Your task to perform on an android device: turn off translation in the chrome app Image 0: 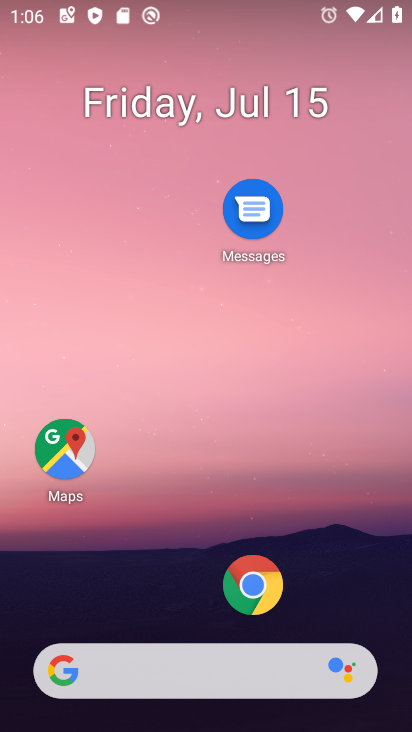
Step 0: press home button
Your task to perform on an android device: turn off translation in the chrome app Image 1: 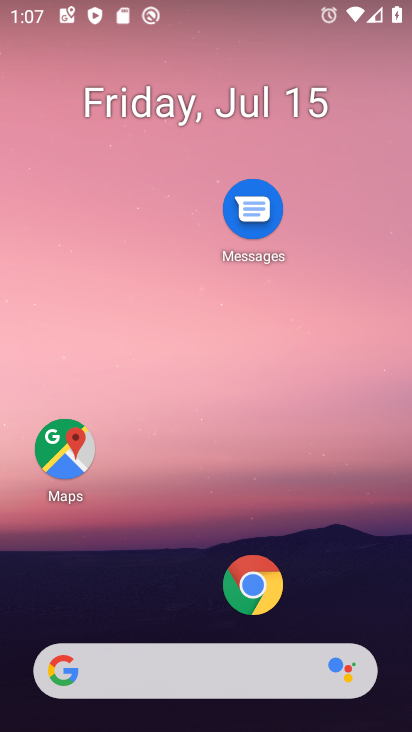
Step 1: click (243, 590)
Your task to perform on an android device: turn off translation in the chrome app Image 2: 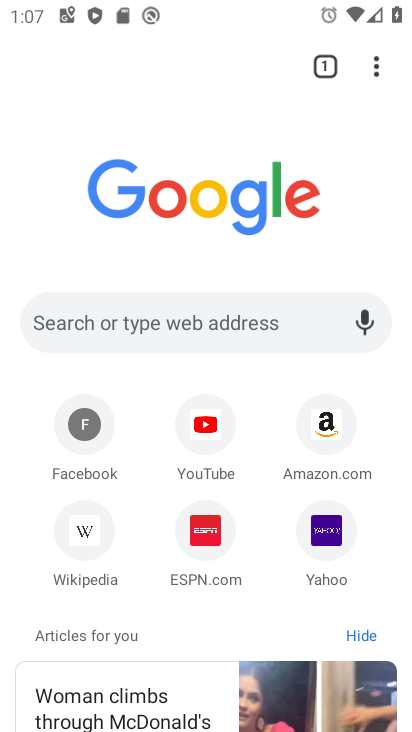
Step 2: drag from (376, 68) to (231, 543)
Your task to perform on an android device: turn off translation in the chrome app Image 3: 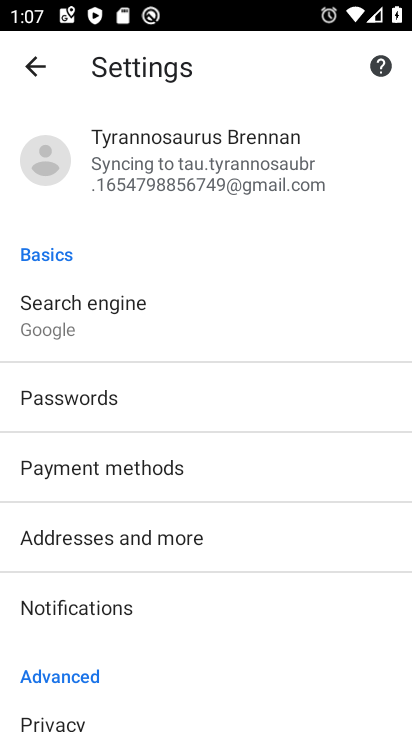
Step 3: drag from (163, 652) to (323, 223)
Your task to perform on an android device: turn off translation in the chrome app Image 4: 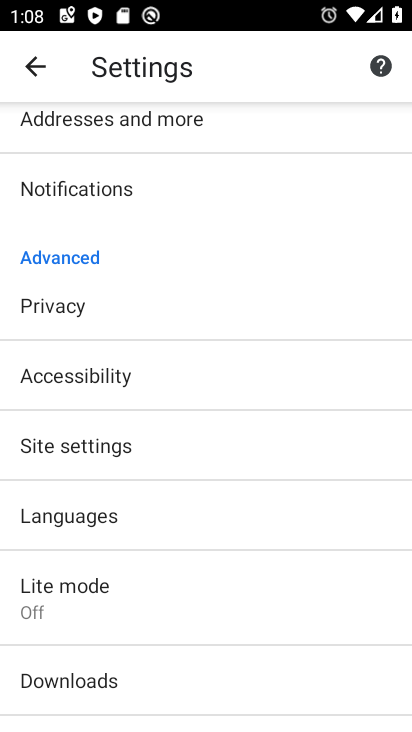
Step 4: click (65, 529)
Your task to perform on an android device: turn off translation in the chrome app Image 5: 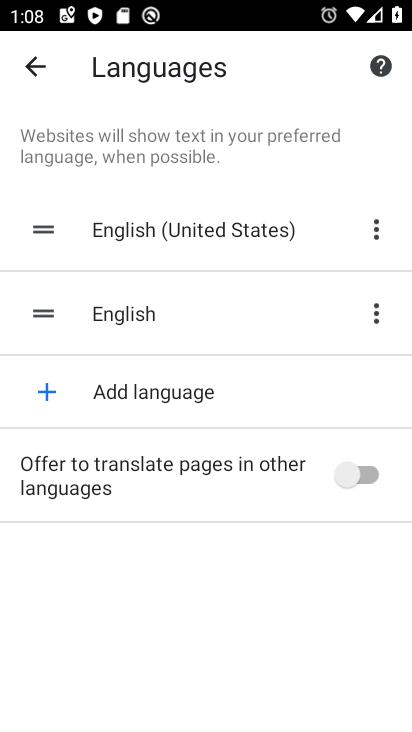
Step 5: task complete